Your task to perform on an android device: Turn on the flashlight Image 0: 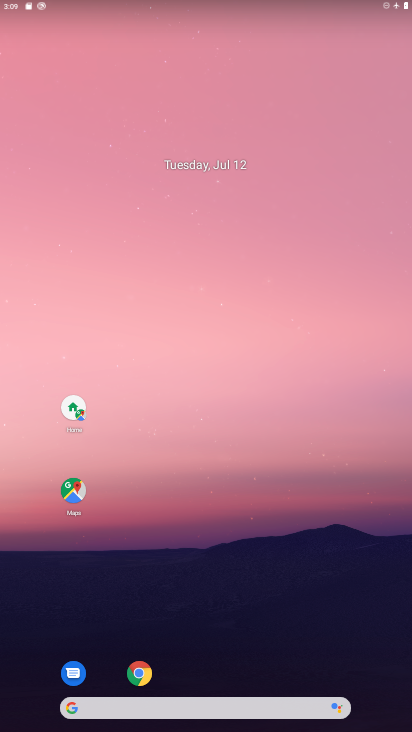
Step 0: drag from (258, 578) to (260, 130)
Your task to perform on an android device: Turn on the flashlight Image 1: 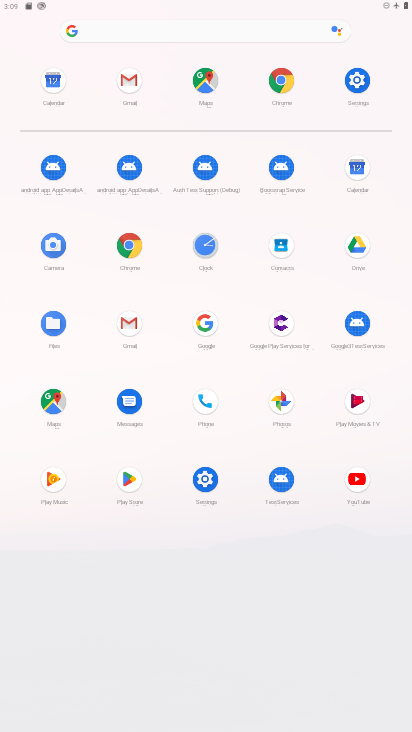
Step 1: click (355, 84)
Your task to perform on an android device: Turn on the flashlight Image 2: 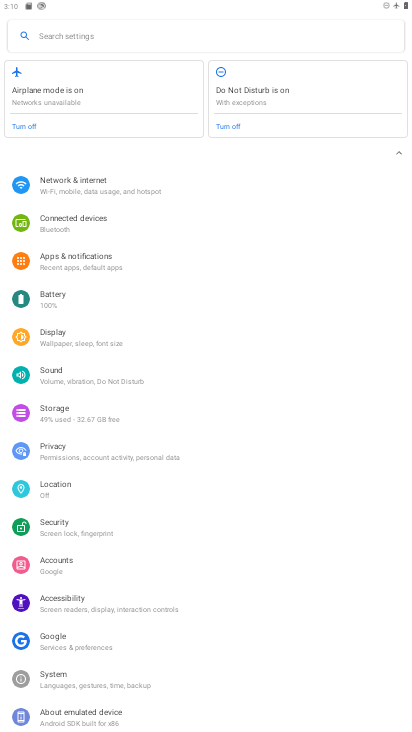
Step 2: task complete